Your task to perform on an android device: check google app version Image 0: 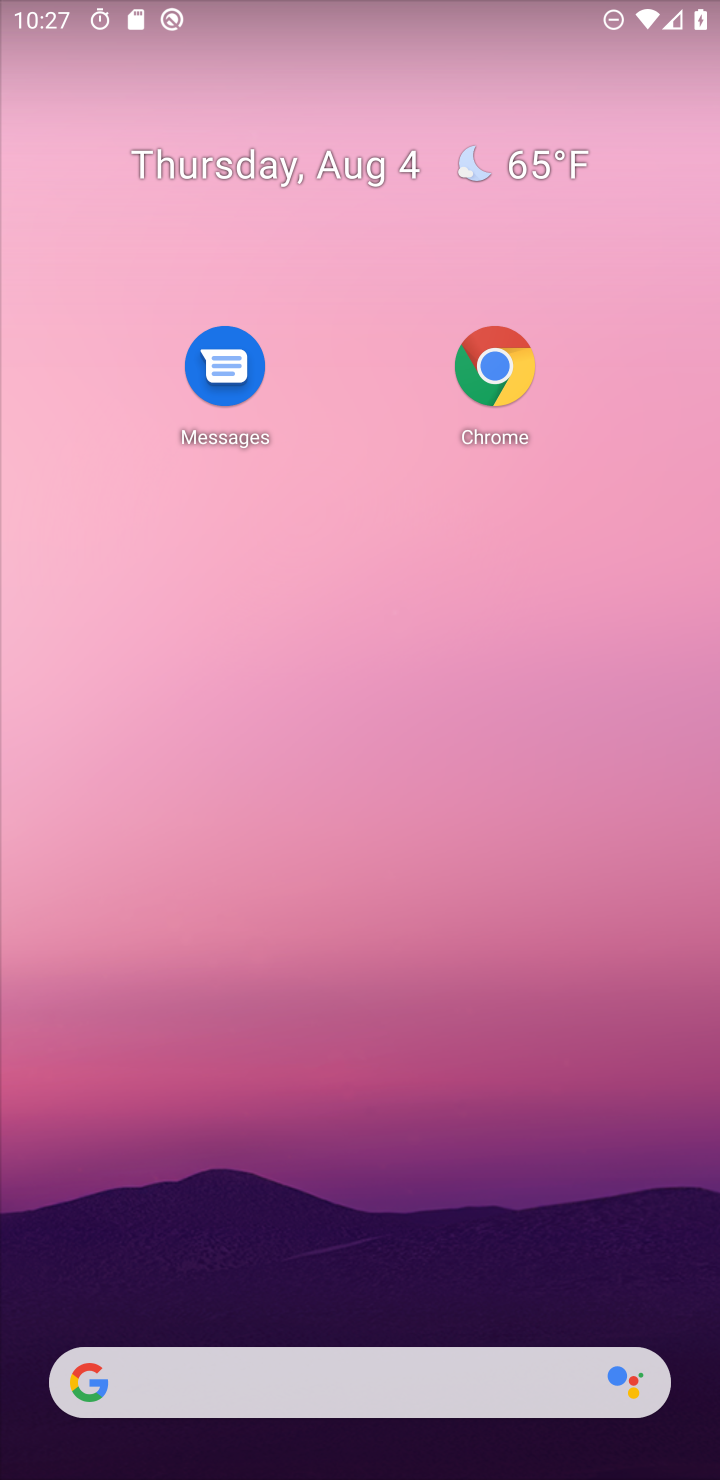
Step 0: drag from (549, 1405) to (542, 349)
Your task to perform on an android device: check google app version Image 1: 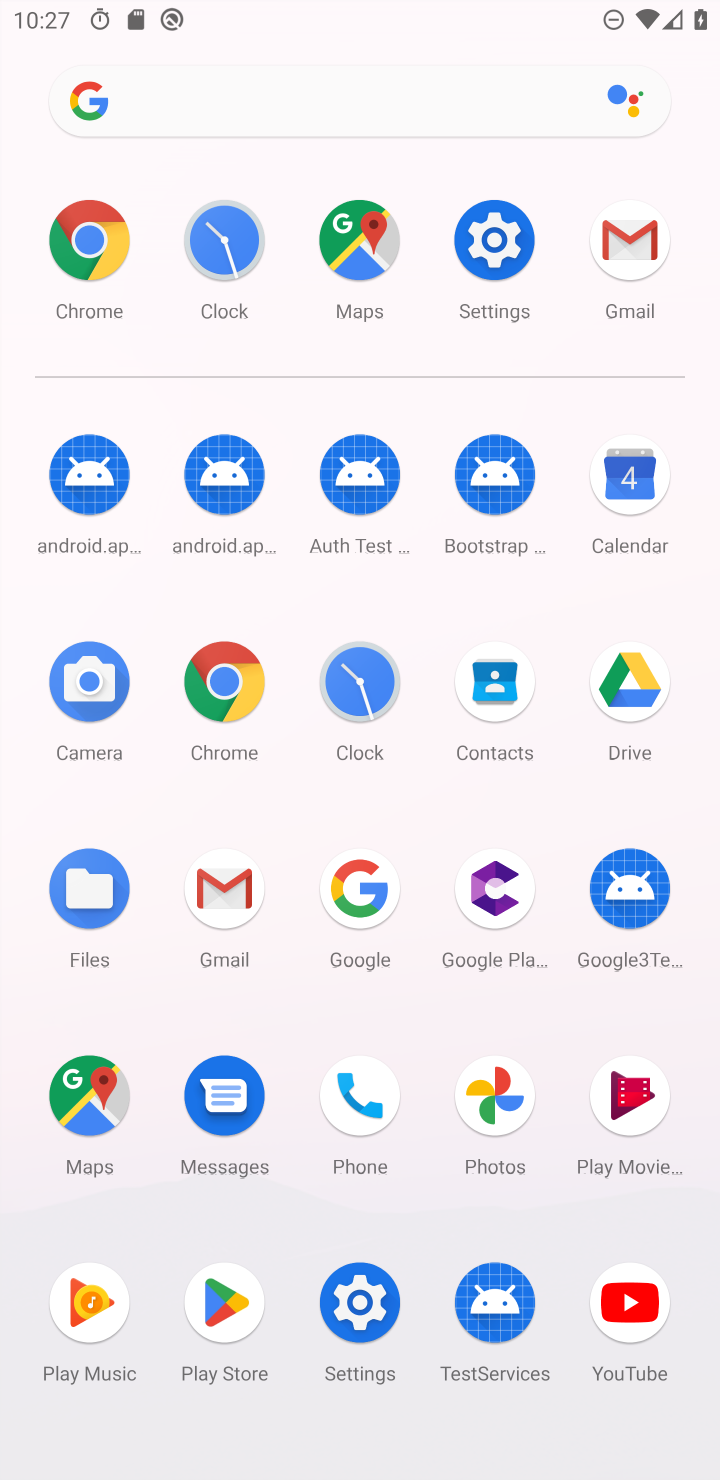
Step 1: click (333, 1028)
Your task to perform on an android device: check google app version Image 2: 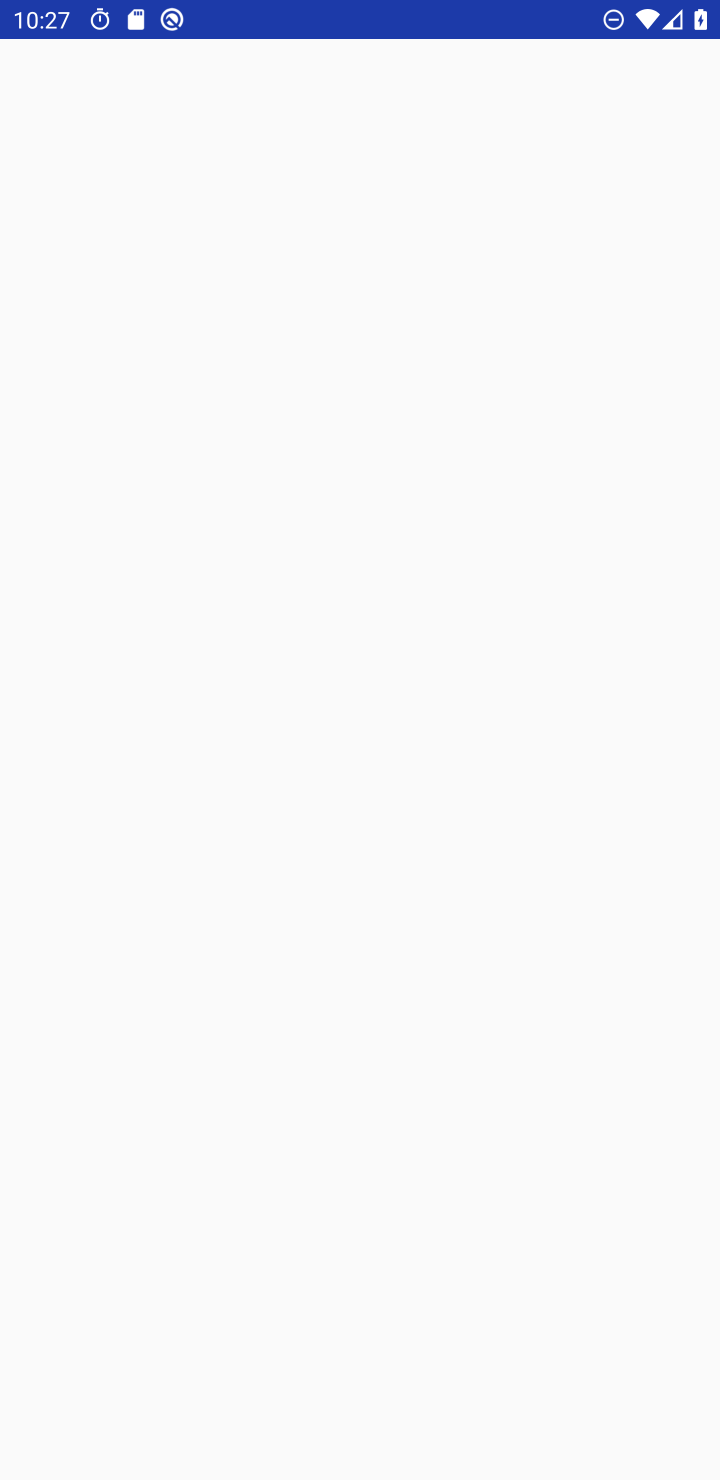
Step 2: click (110, 244)
Your task to perform on an android device: check google app version Image 3: 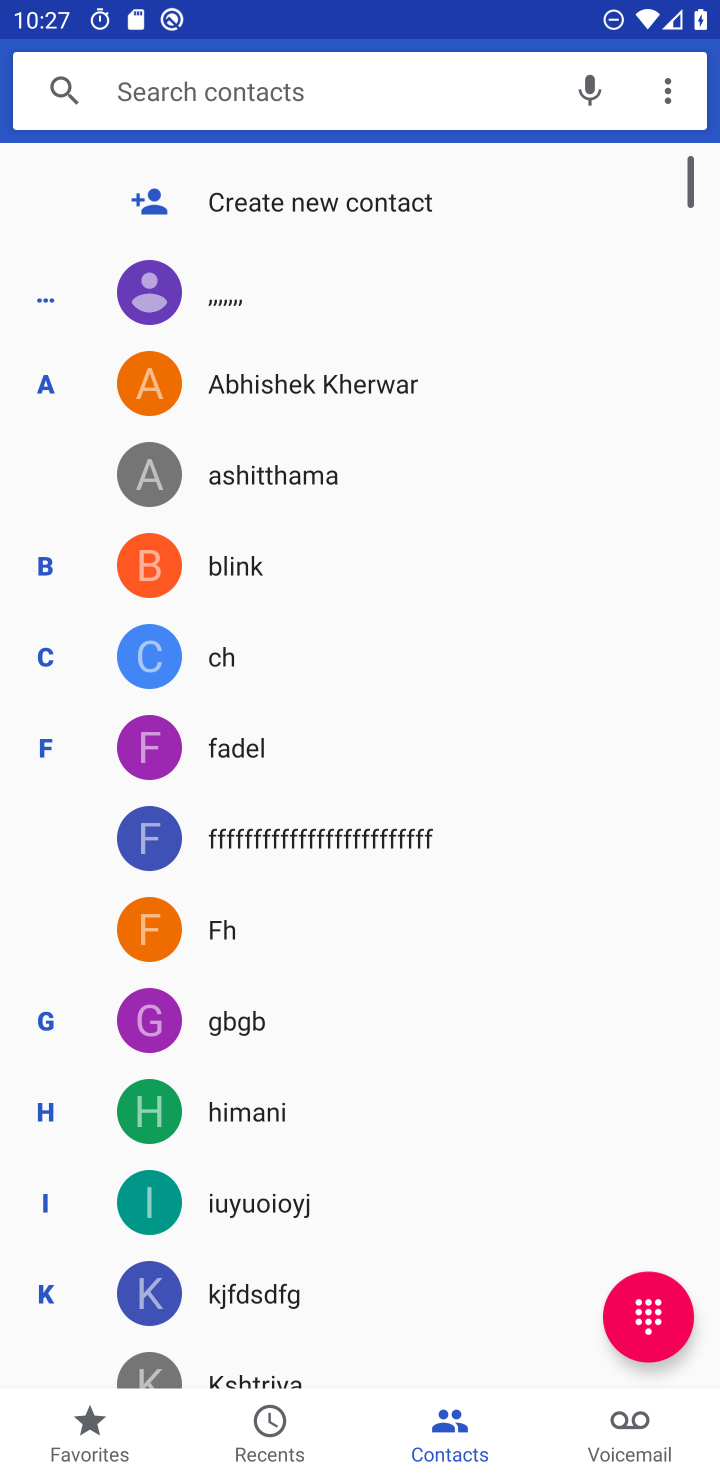
Step 3: press home button
Your task to perform on an android device: check google app version Image 4: 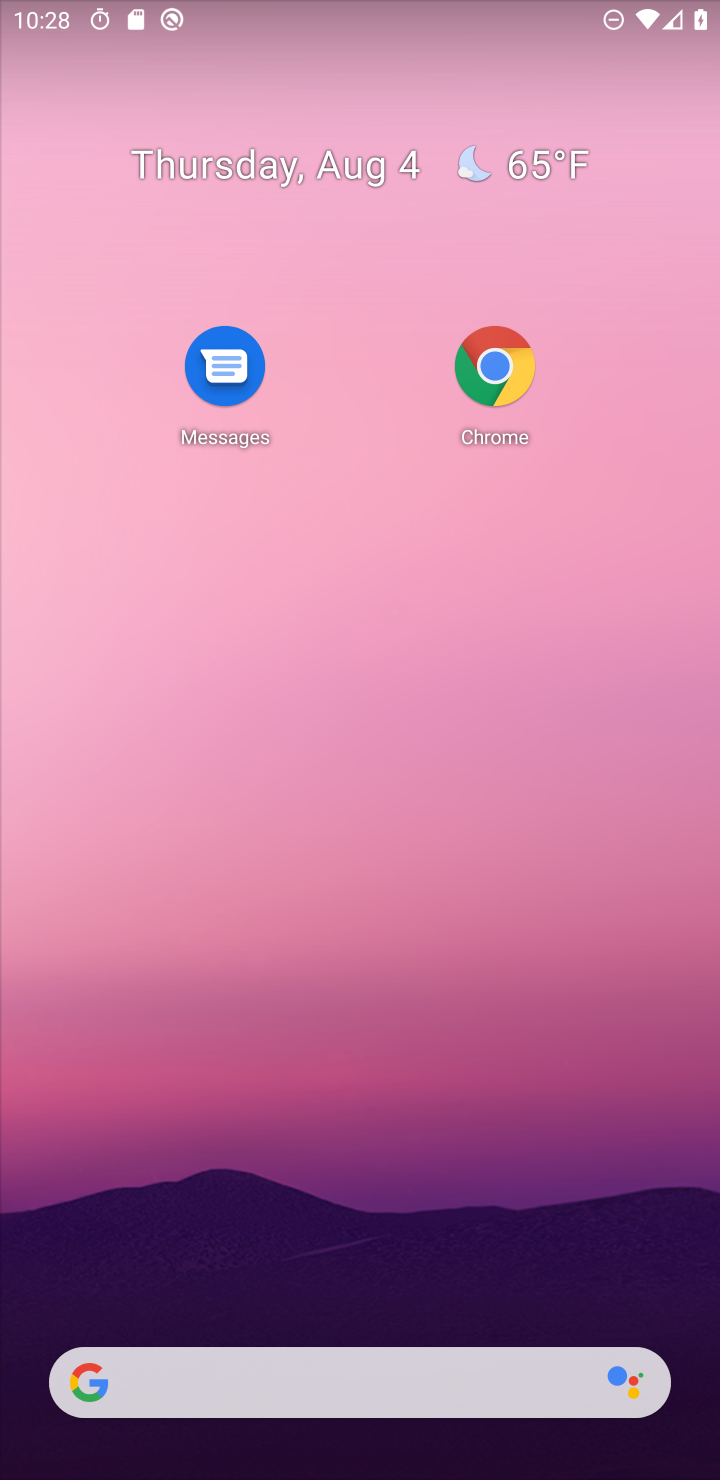
Step 4: drag from (493, 1426) to (387, 522)
Your task to perform on an android device: check google app version Image 5: 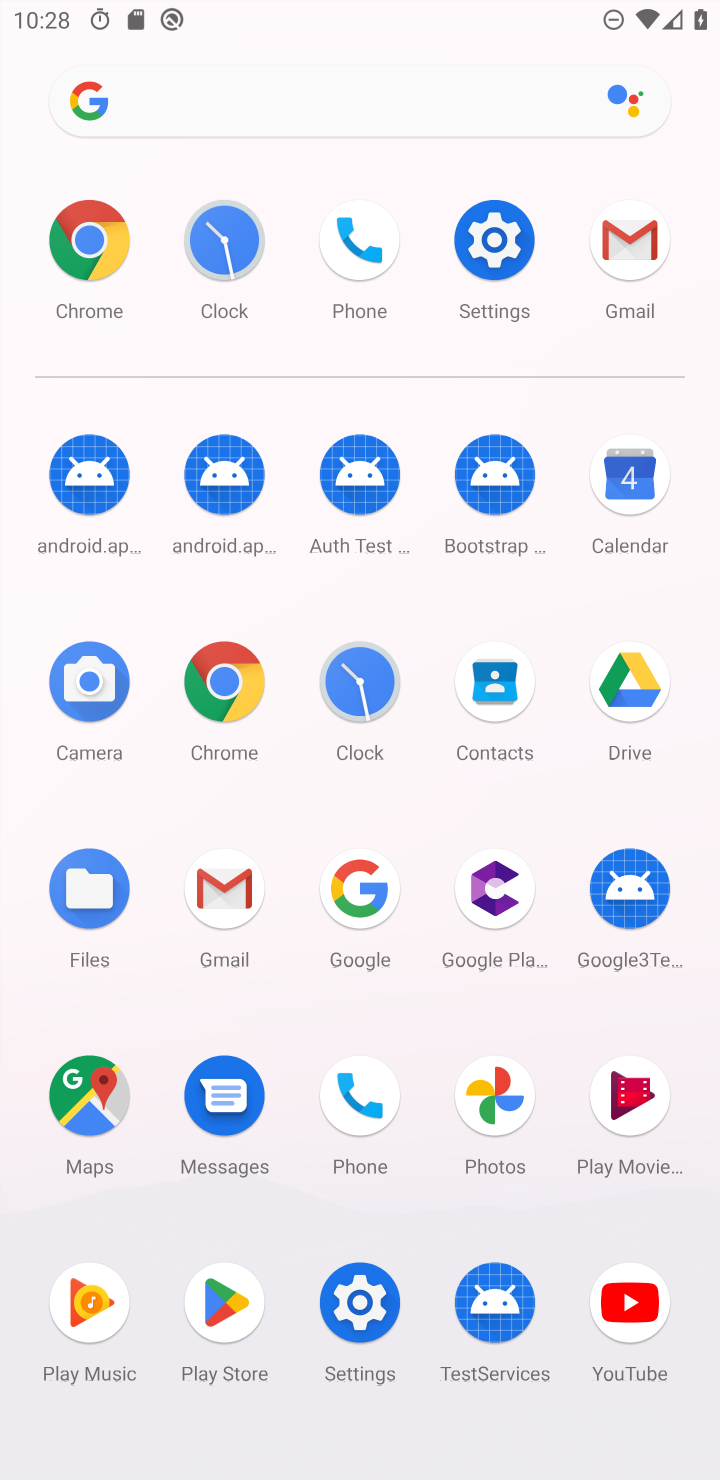
Step 5: click (241, 664)
Your task to perform on an android device: check google app version Image 6: 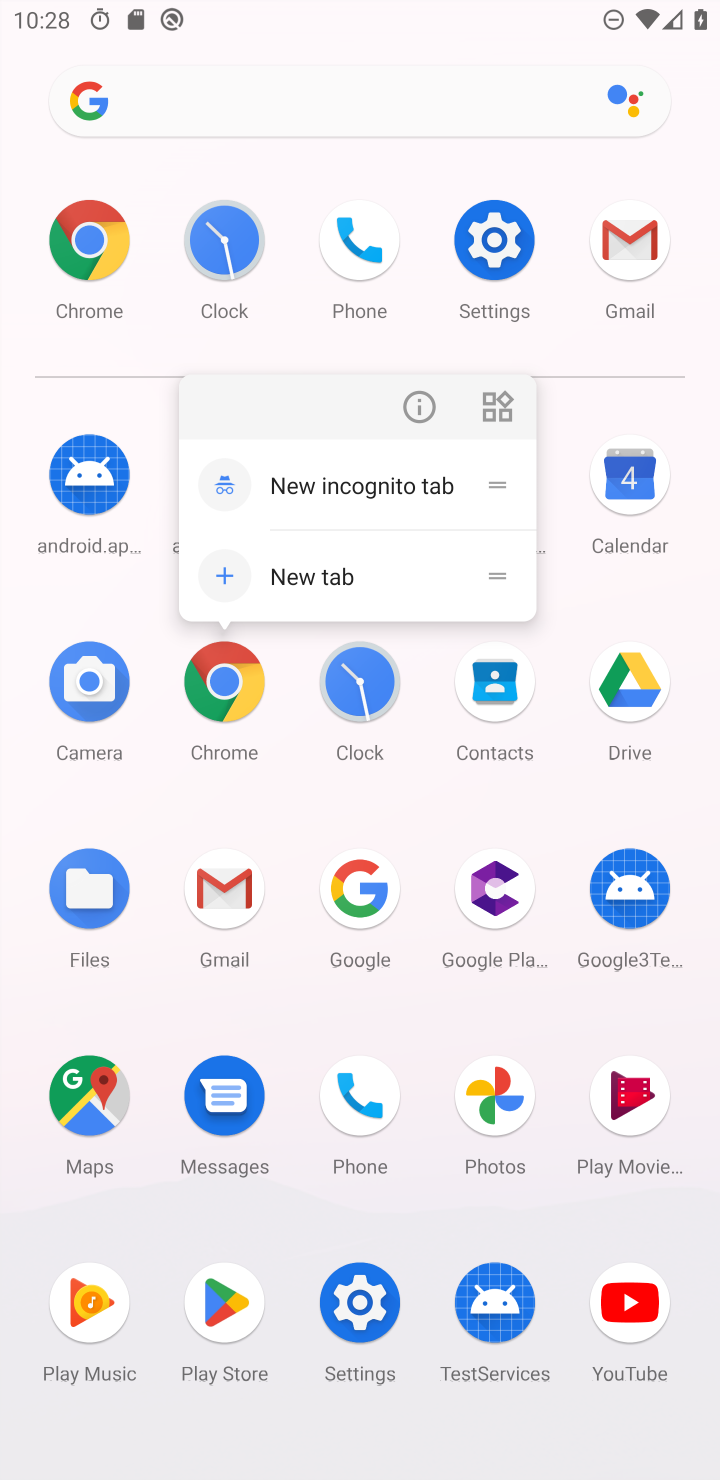
Step 6: click (67, 300)
Your task to perform on an android device: check google app version Image 7: 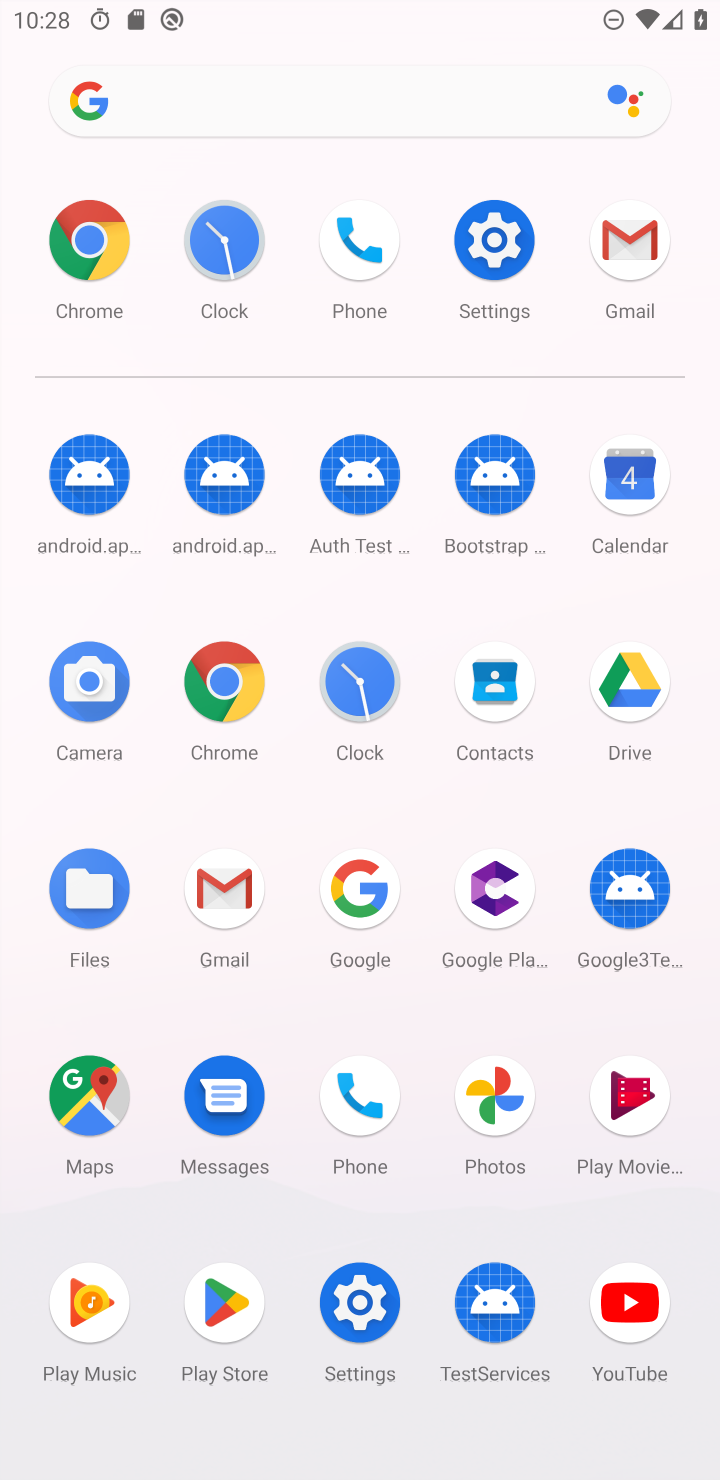
Step 7: click (83, 246)
Your task to perform on an android device: check google app version Image 8: 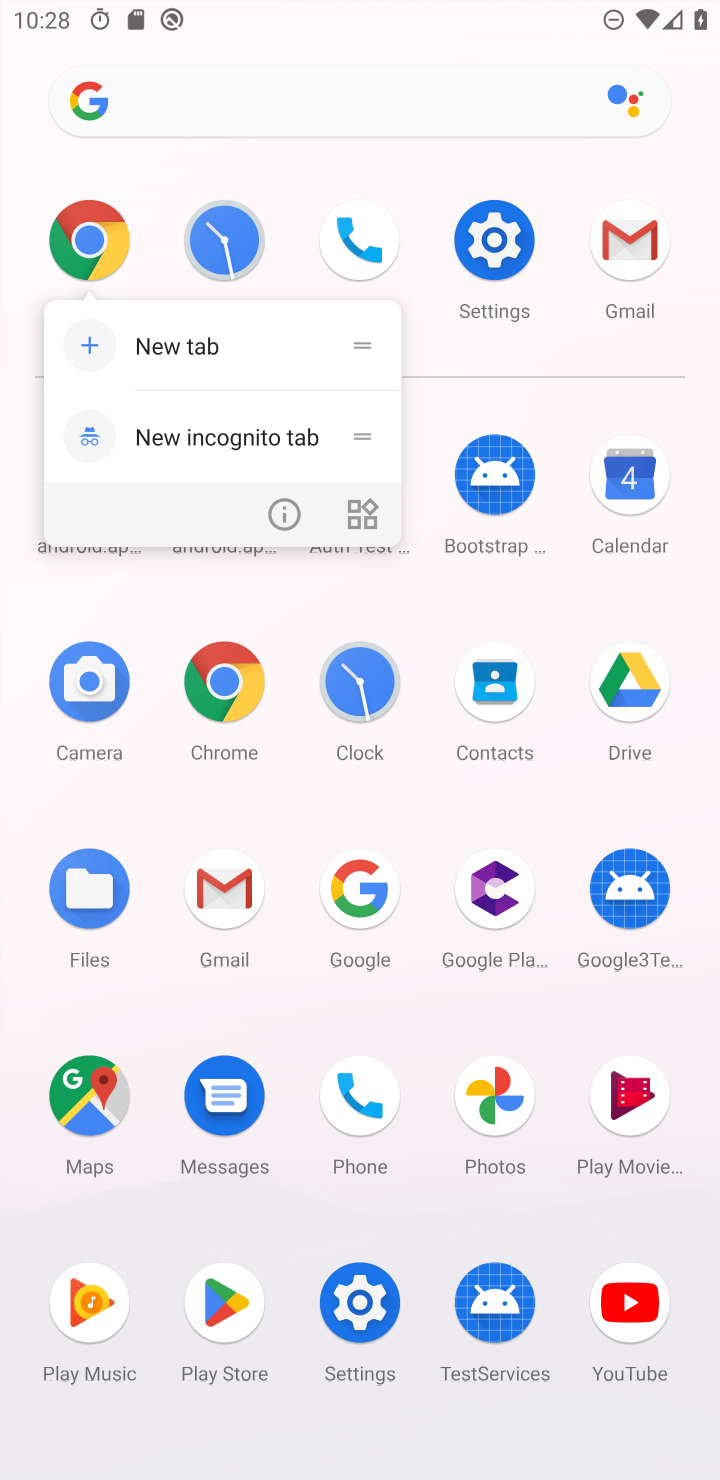
Step 8: click (91, 234)
Your task to perform on an android device: check google app version Image 9: 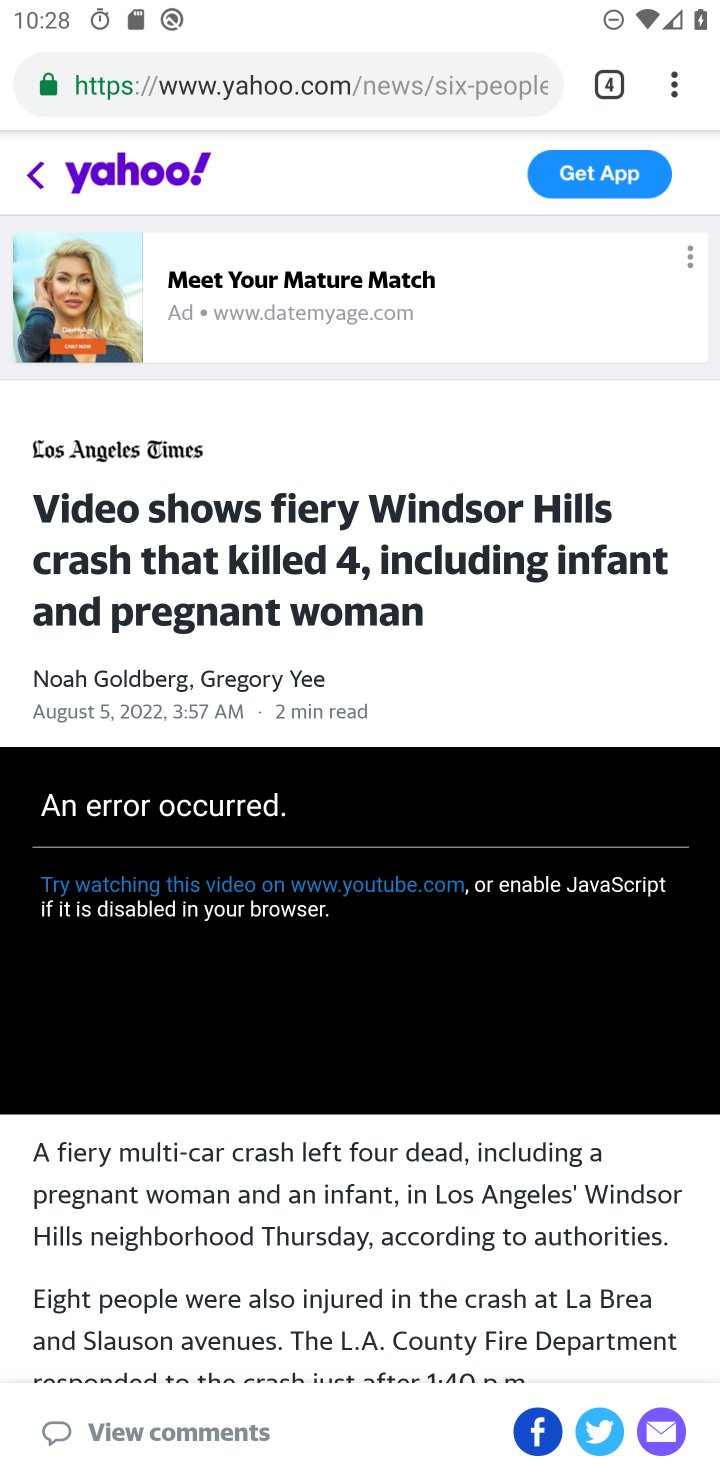
Step 9: click (666, 93)
Your task to perform on an android device: check google app version Image 10: 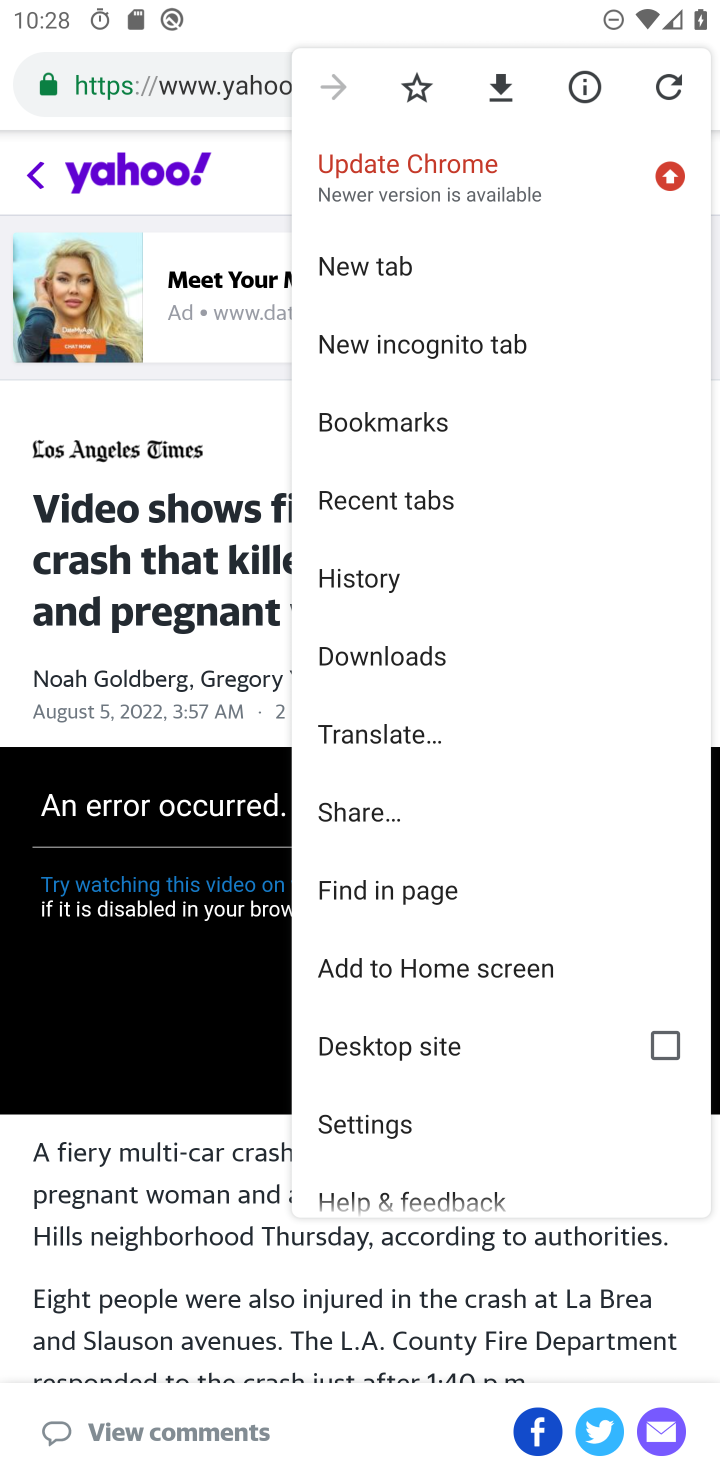
Step 10: click (366, 1127)
Your task to perform on an android device: check google app version Image 11: 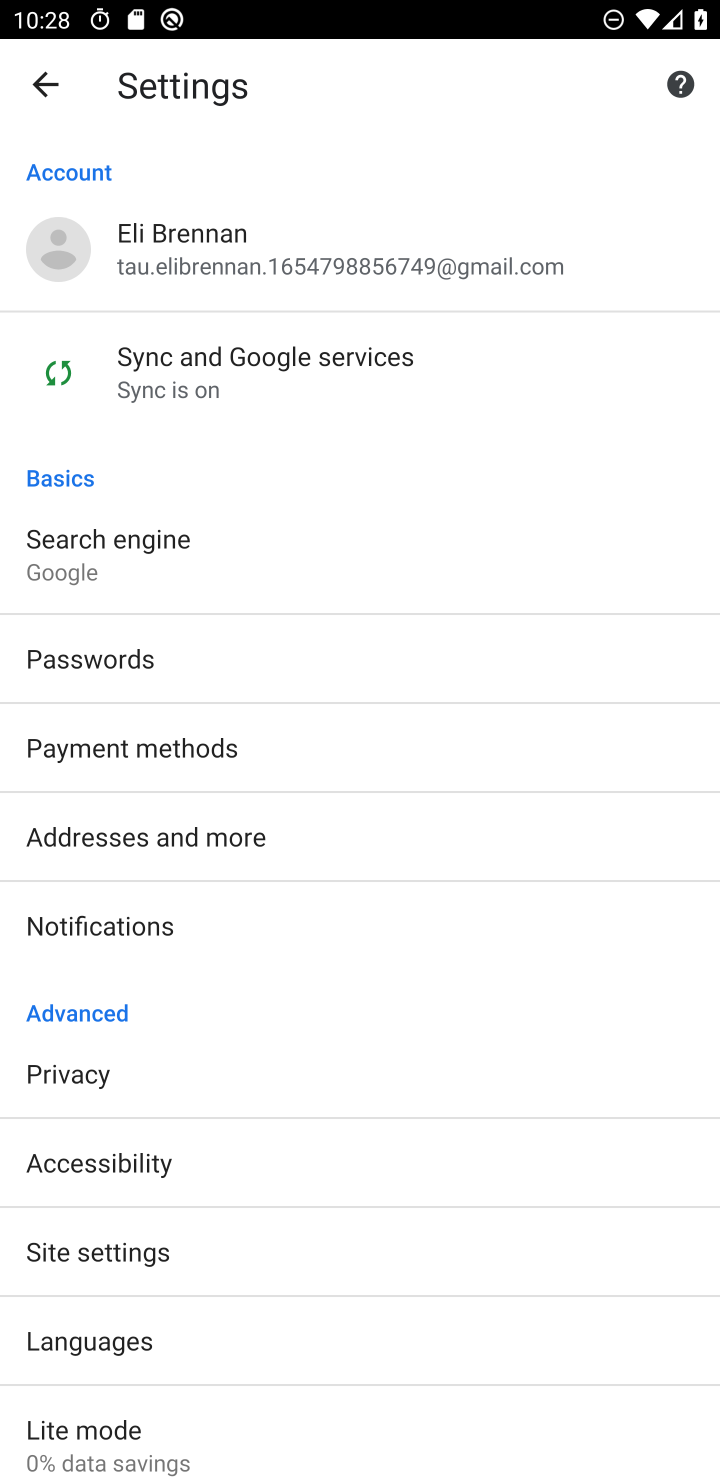
Step 11: drag from (314, 1187) to (202, 454)
Your task to perform on an android device: check google app version Image 12: 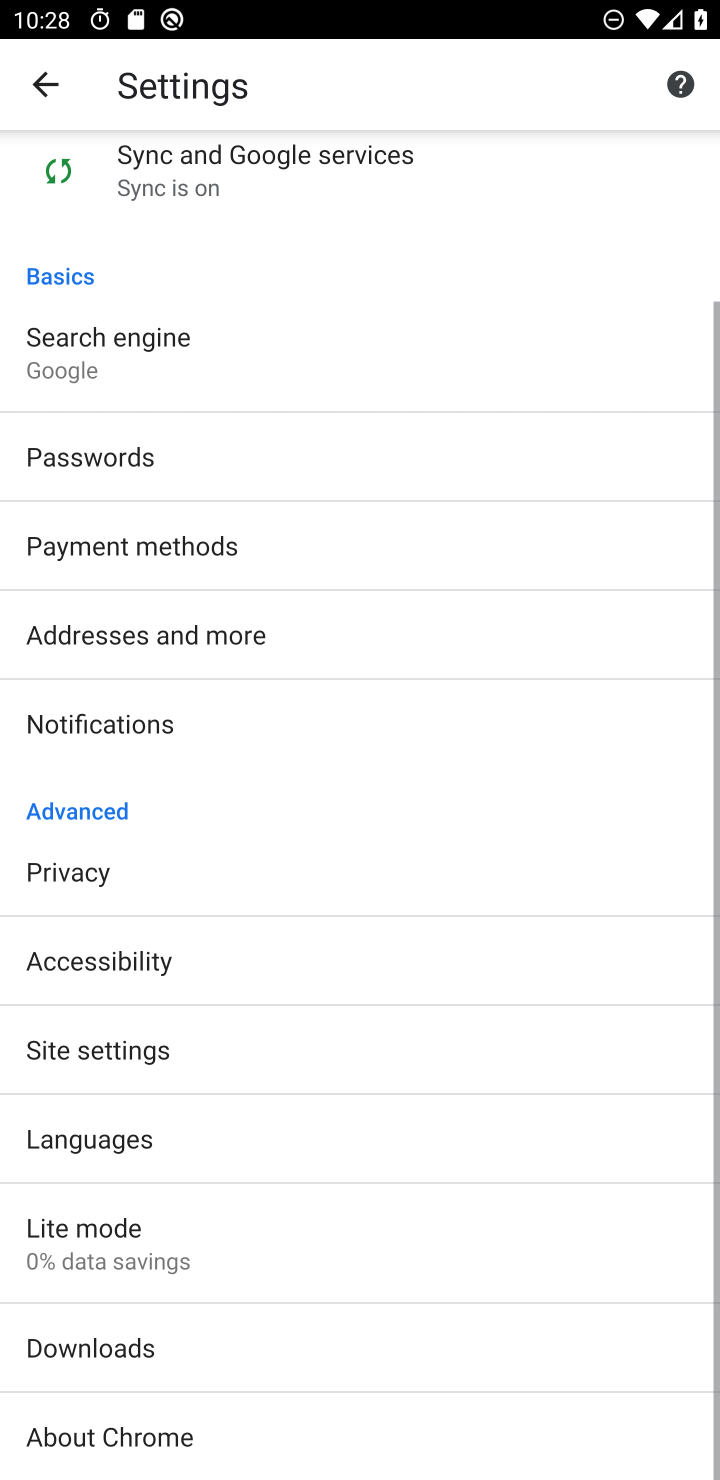
Step 12: click (163, 1419)
Your task to perform on an android device: check google app version Image 13: 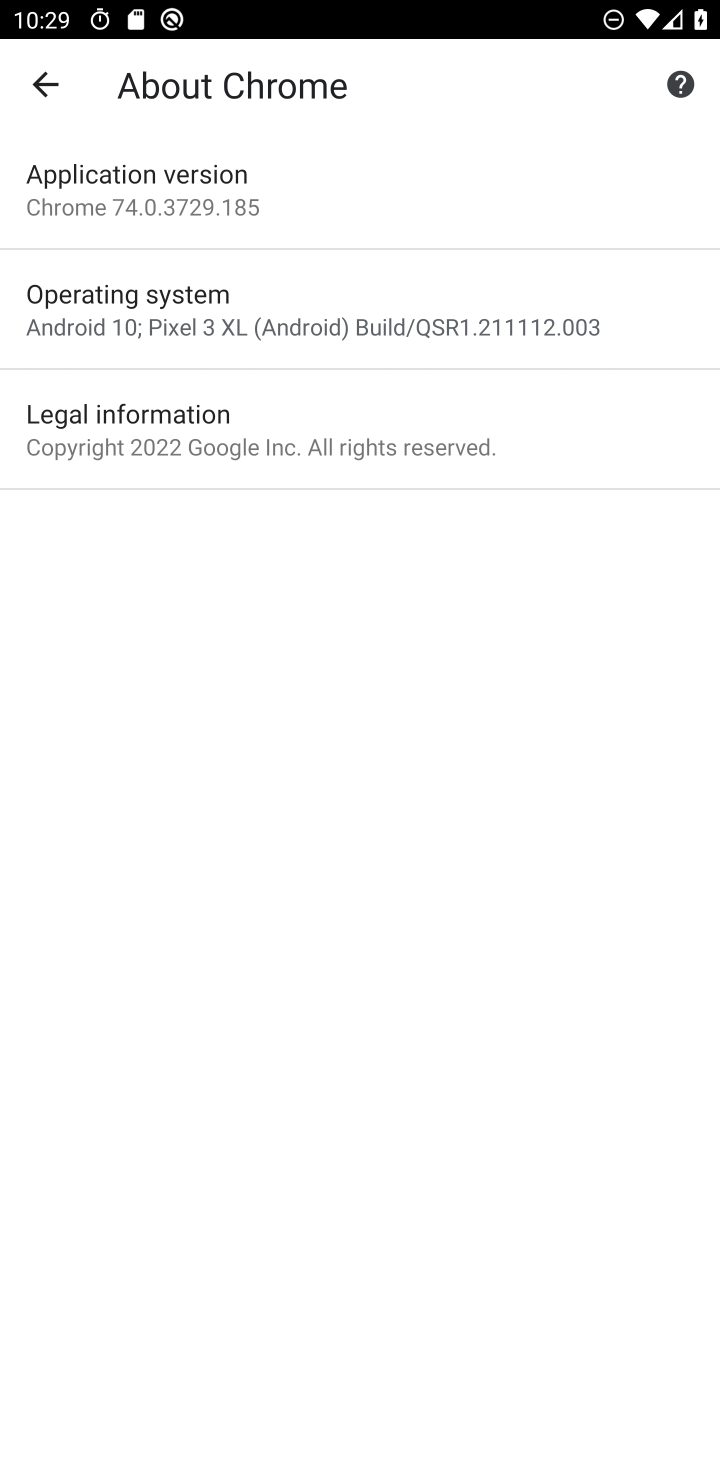
Step 13: click (234, 228)
Your task to perform on an android device: check google app version Image 14: 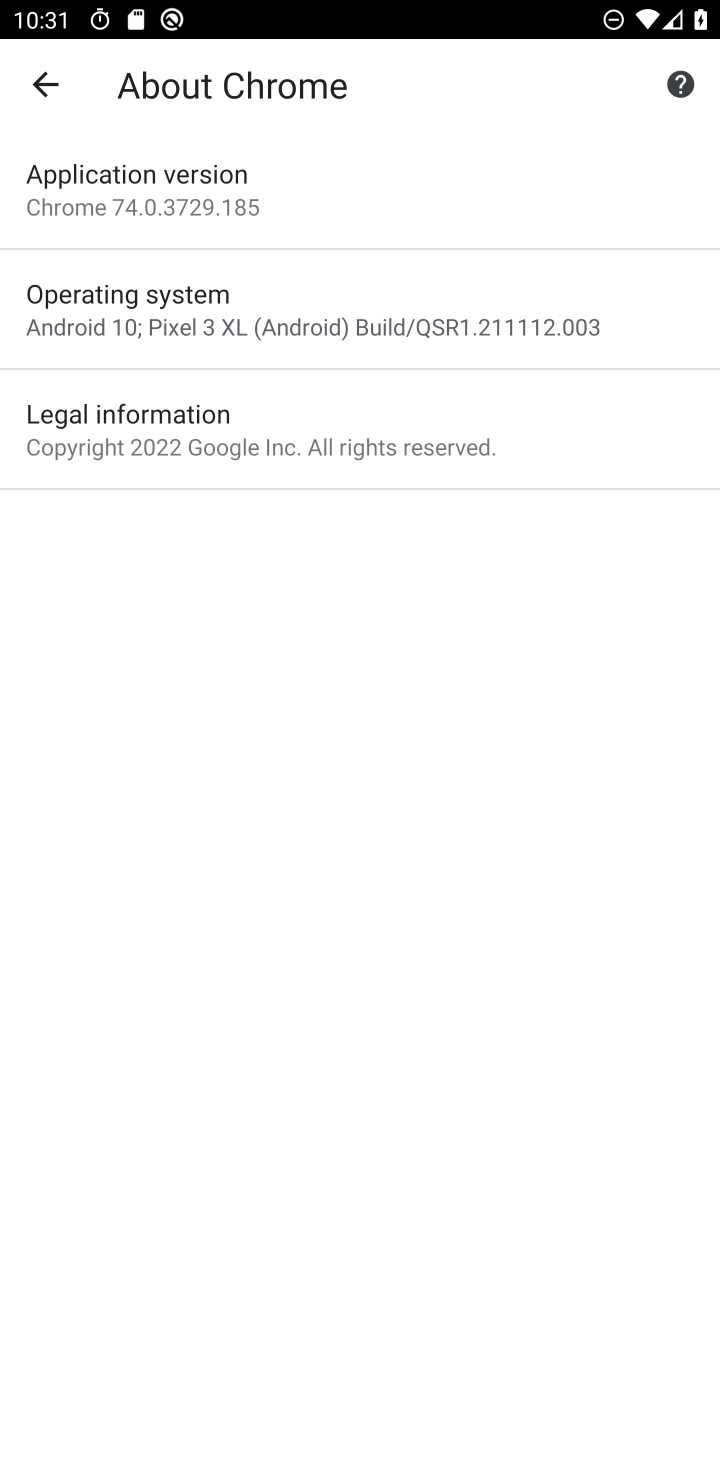
Step 14: task complete